Your task to perform on an android device: turn on sleep mode Image 0: 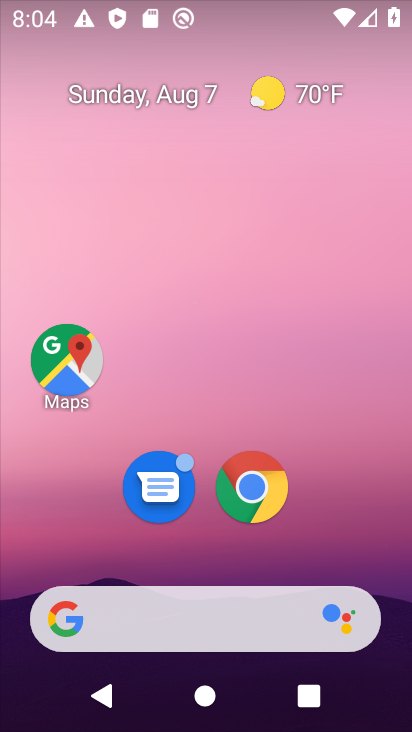
Step 0: drag from (381, 692) to (329, 106)
Your task to perform on an android device: turn on sleep mode Image 1: 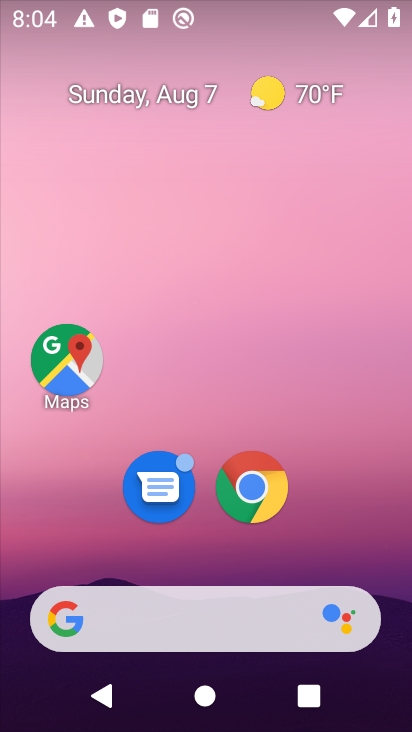
Step 1: drag from (379, 654) to (337, 66)
Your task to perform on an android device: turn on sleep mode Image 2: 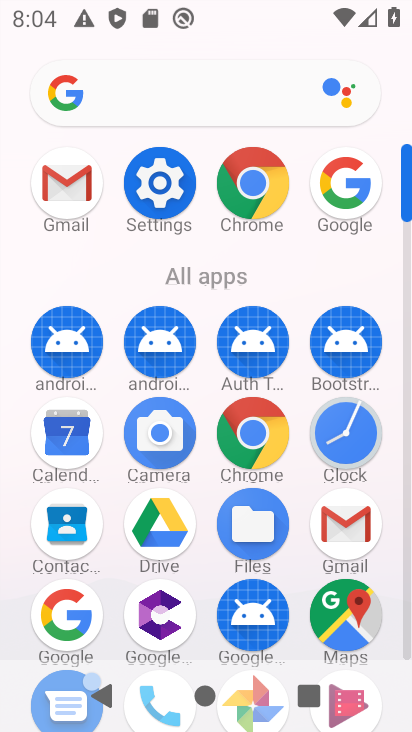
Step 2: click (145, 174)
Your task to perform on an android device: turn on sleep mode Image 3: 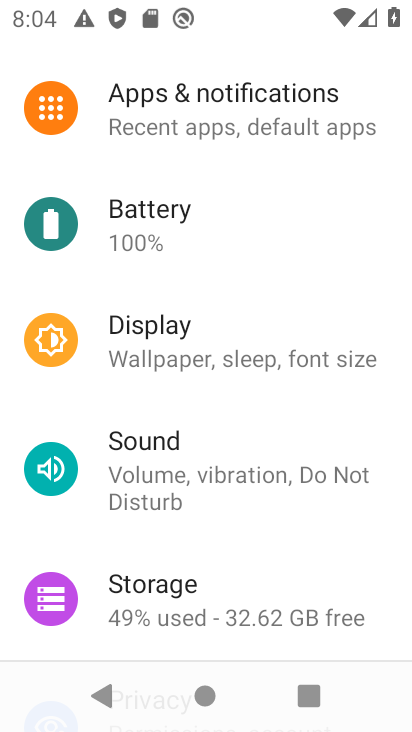
Step 3: click (134, 341)
Your task to perform on an android device: turn on sleep mode Image 4: 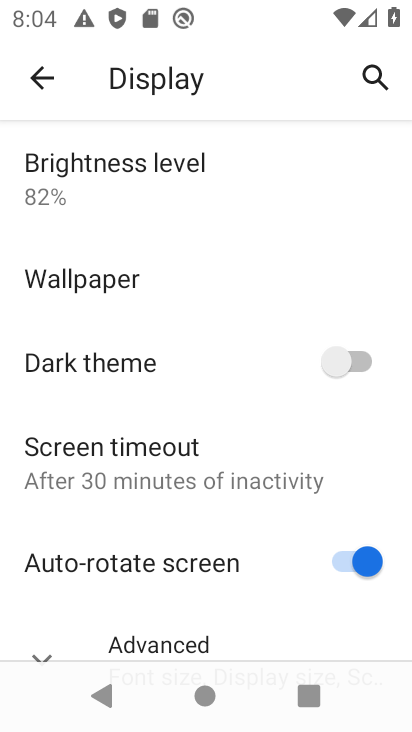
Step 4: click (95, 462)
Your task to perform on an android device: turn on sleep mode Image 5: 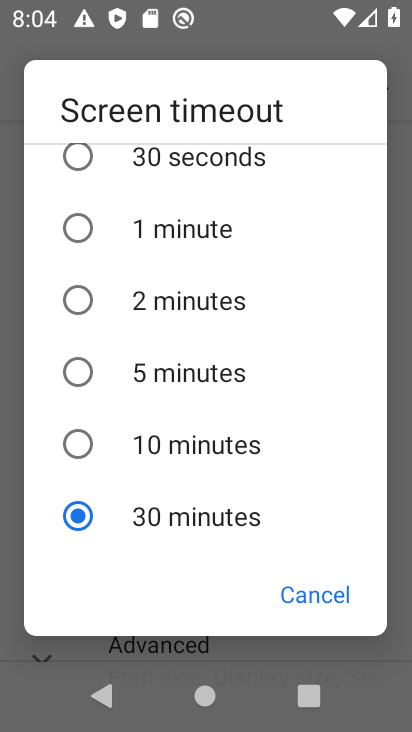
Step 5: task complete